Your task to perform on an android device: visit the assistant section in the google photos Image 0: 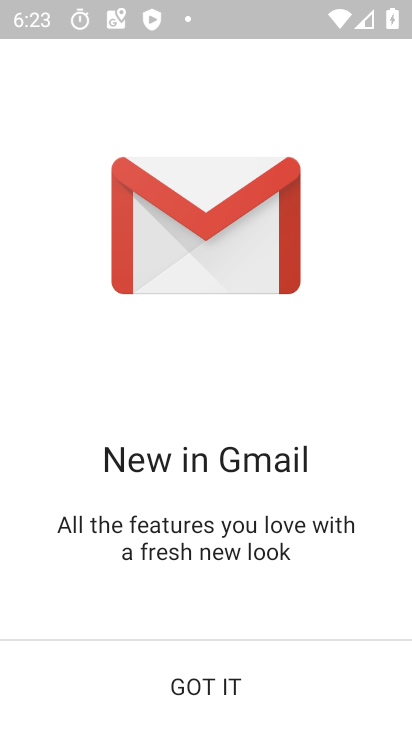
Step 0: press home button
Your task to perform on an android device: visit the assistant section in the google photos Image 1: 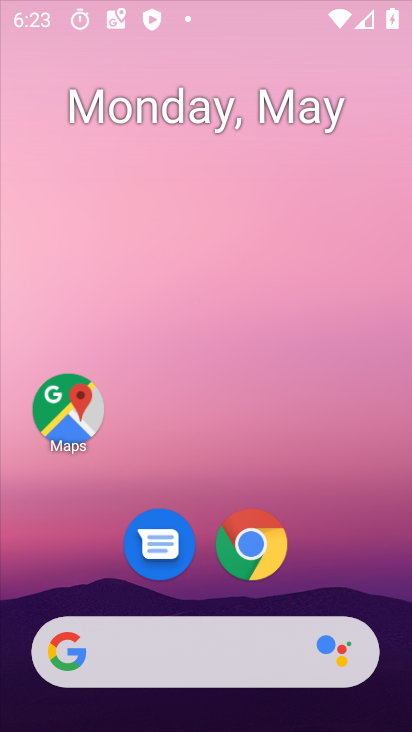
Step 1: drag from (335, 571) to (209, 19)
Your task to perform on an android device: visit the assistant section in the google photos Image 2: 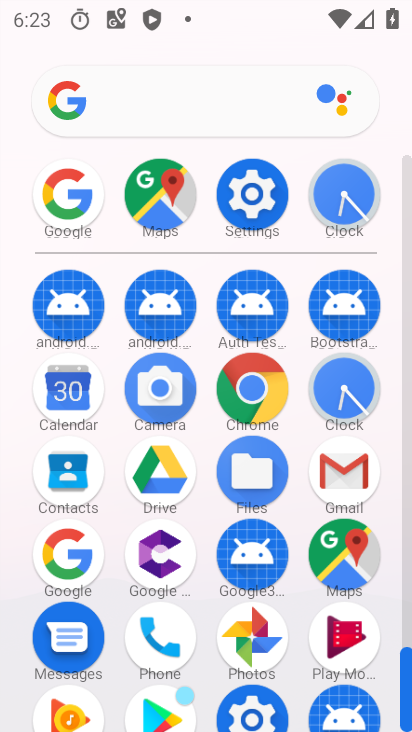
Step 2: click (264, 632)
Your task to perform on an android device: visit the assistant section in the google photos Image 3: 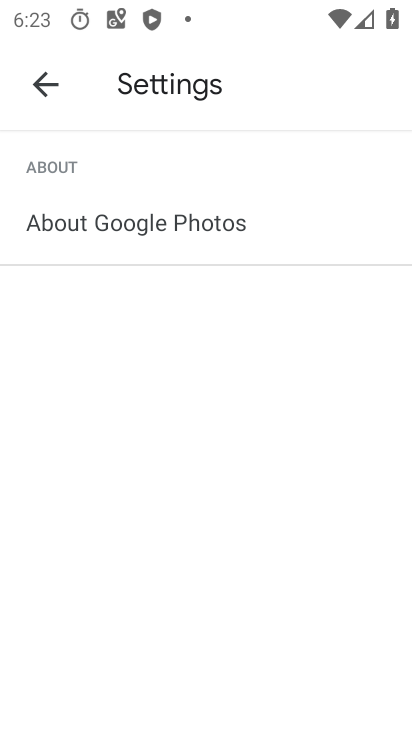
Step 3: click (42, 60)
Your task to perform on an android device: visit the assistant section in the google photos Image 4: 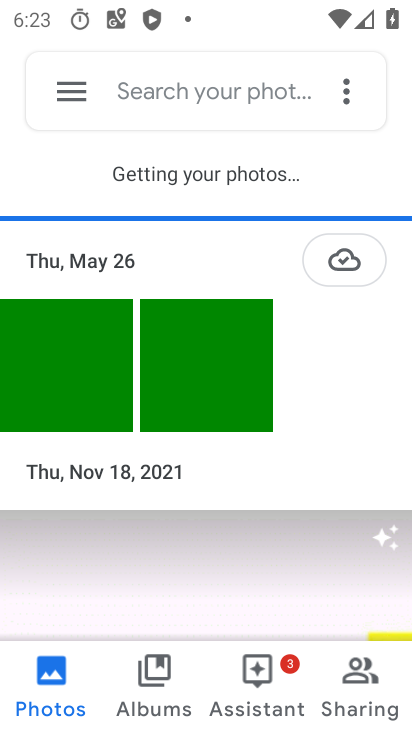
Step 4: click (264, 683)
Your task to perform on an android device: visit the assistant section in the google photos Image 5: 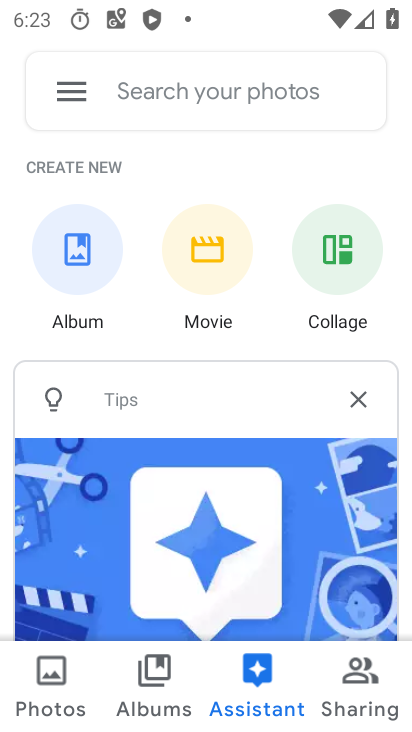
Step 5: task complete